Your task to perform on an android device: create a new album in the google photos Image 0: 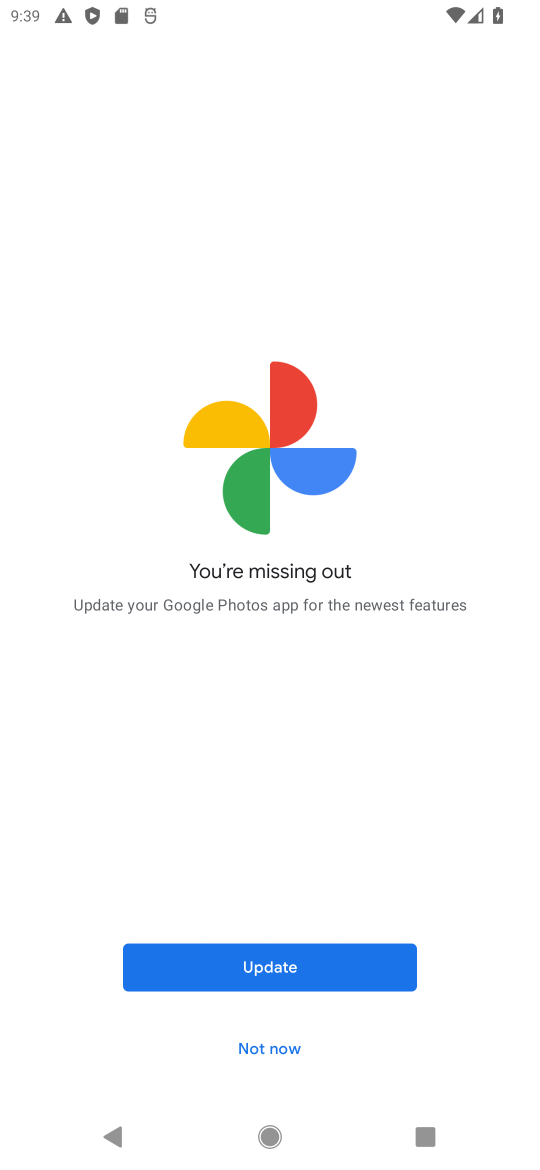
Step 0: click (253, 1057)
Your task to perform on an android device: create a new album in the google photos Image 1: 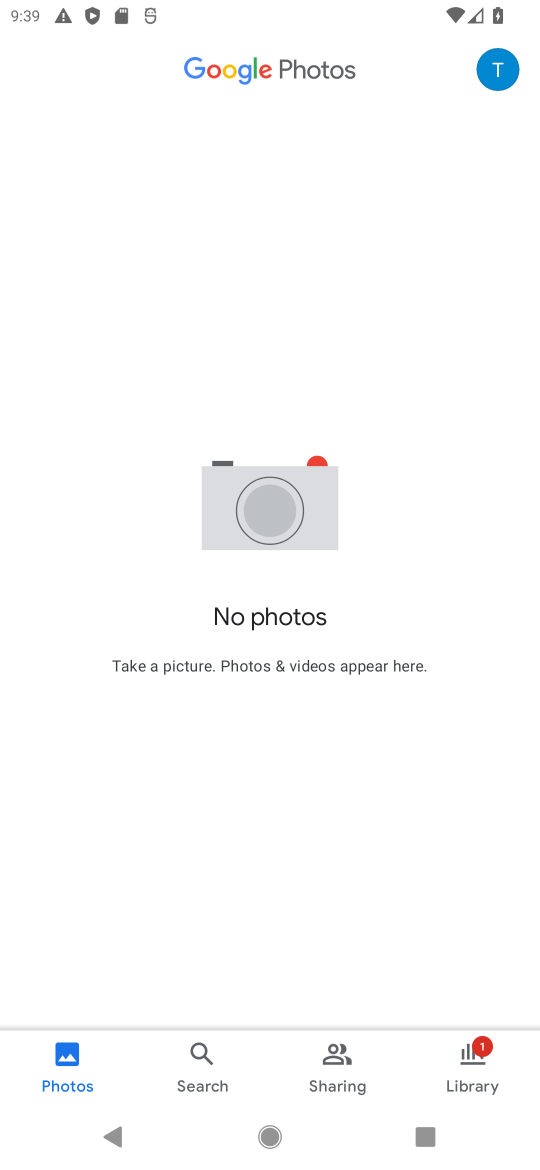
Step 1: task complete